Your task to perform on an android device: change the clock style Image 0: 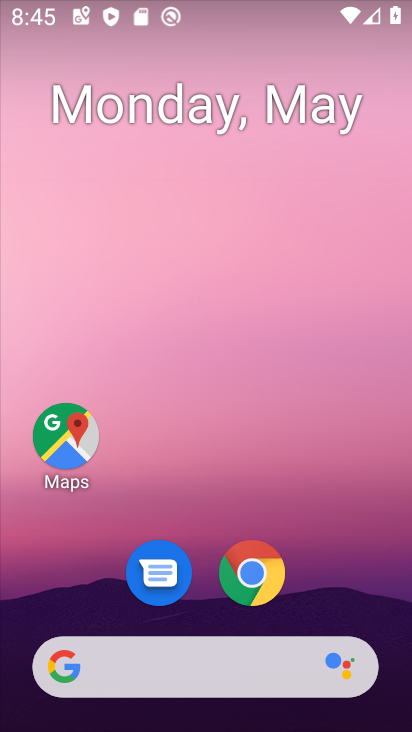
Step 0: drag from (367, 590) to (277, 66)
Your task to perform on an android device: change the clock style Image 1: 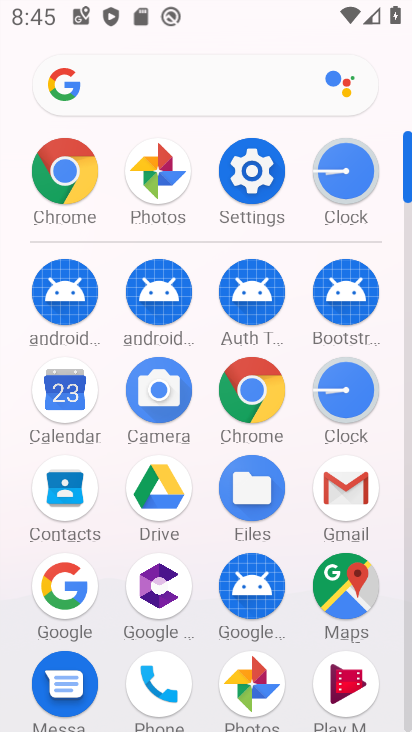
Step 1: click (328, 156)
Your task to perform on an android device: change the clock style Image 2: 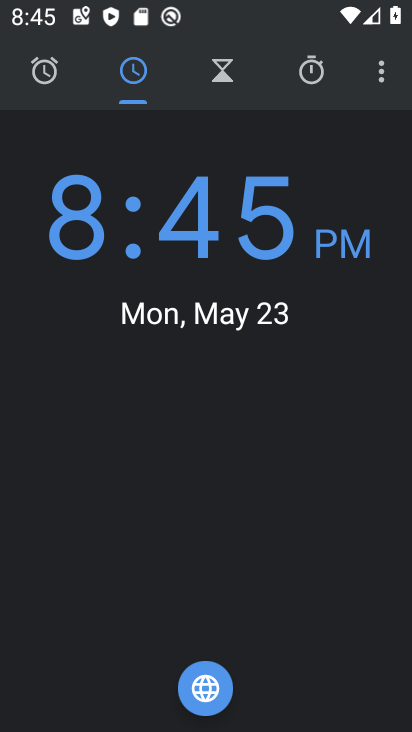
Step 2: click (368, 62)
Your task to perform on an android device: change the clock style Image 3: 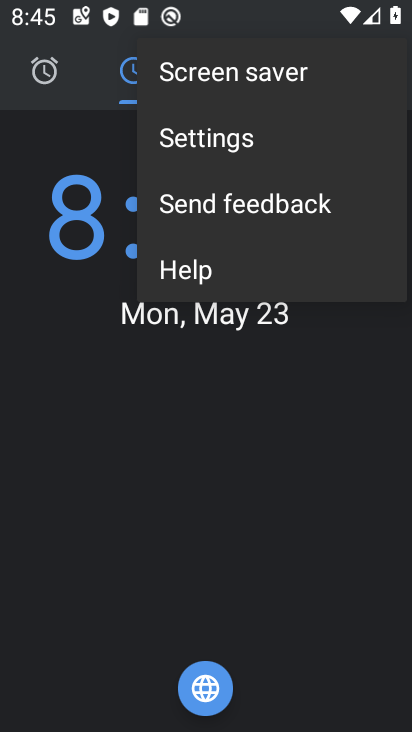
Step 3: click (213, 159)
Your task to perform on an android device: change the clock style Image 4: 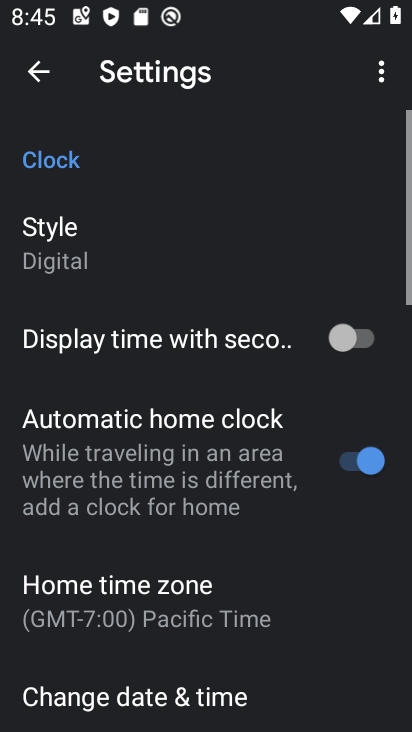
Step 4: click (110, 274)
Your task to perform on an android device: change the clock style Image 5: 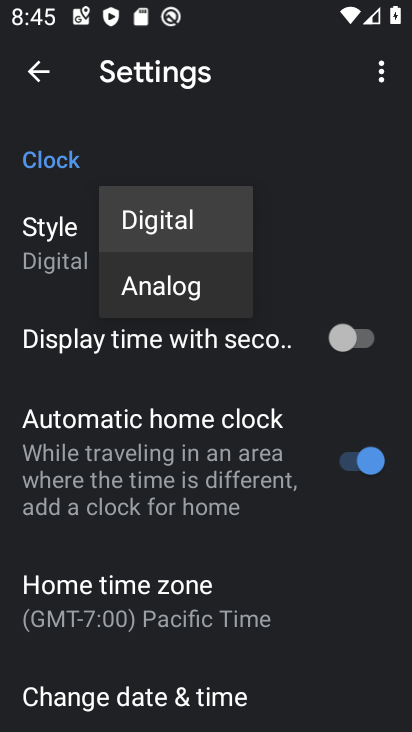
Step 5: click (201, 214)
Your task to perform on an android device: change the clock style Image 6: 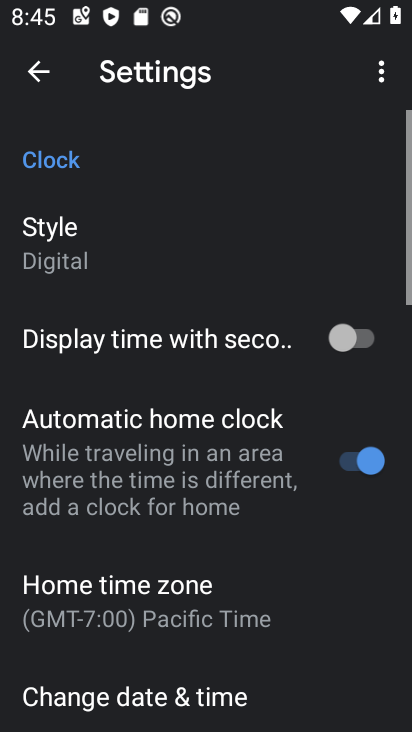
Step 6: task complete